Your task to perform on an android device: Go to Maps Image 0: 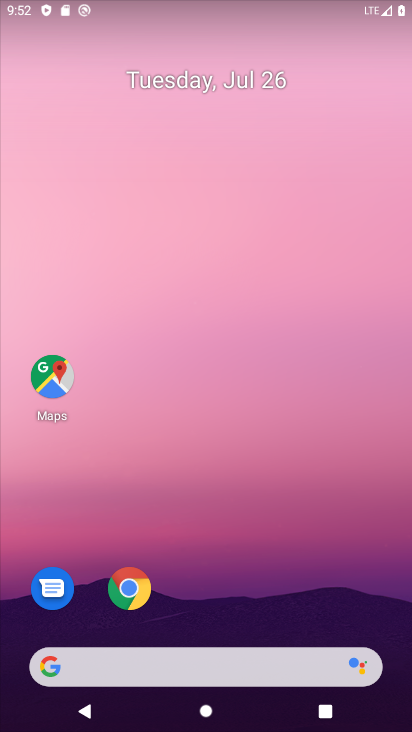
Step 0: click (48, 375)
Your task to perform on an android device: Go to Maps Image 1: 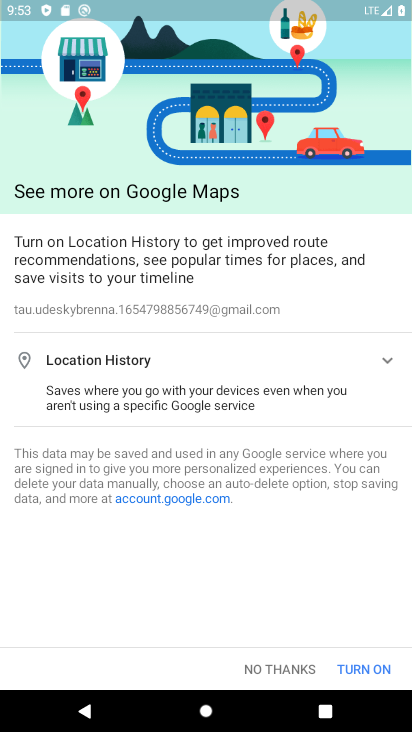
Step 1: click (294, 673)
Your task to perform on an android device: Go to Maps Image 2: 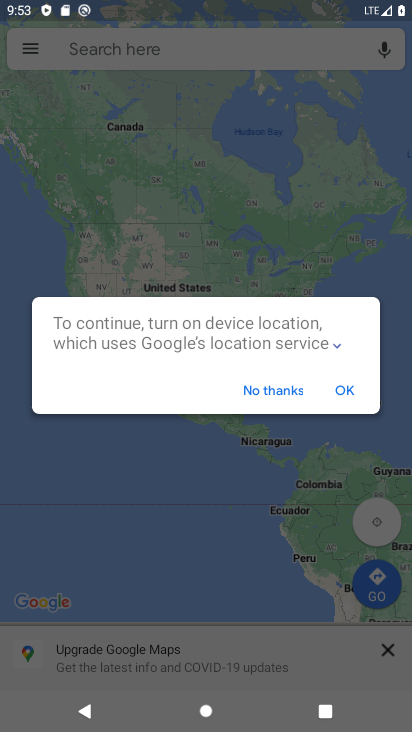
Step 2: click (292, 399)
Your task to perform on an android device: Go to Maps Image 3: 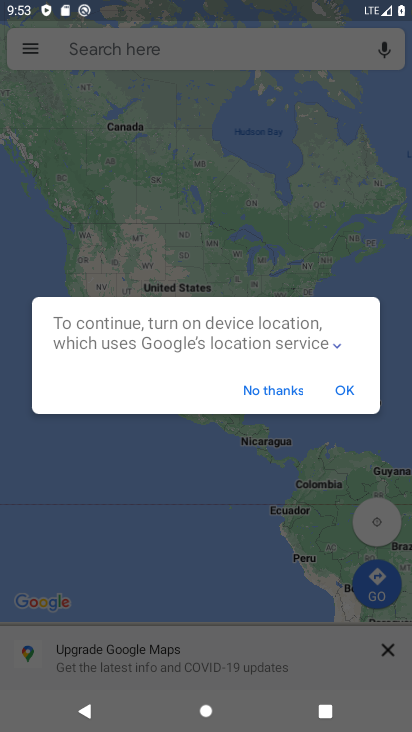
Step 3: click (282, 394)
Your task to perform on an android device: Go to Maps Image 4: 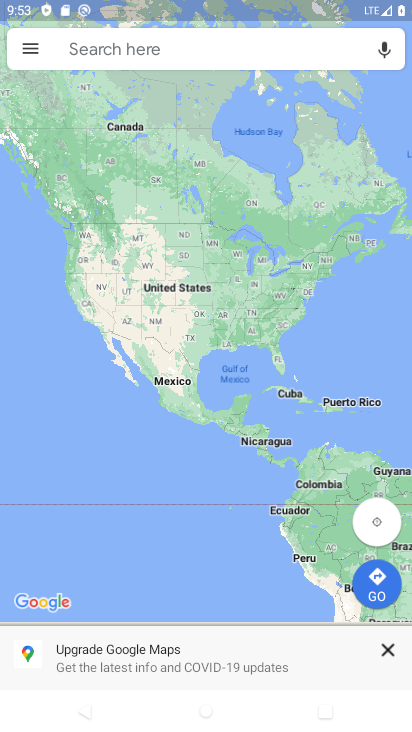
Step 4: task complete